Your task to perform on an android device: change the clock display to show seconds Image 0: 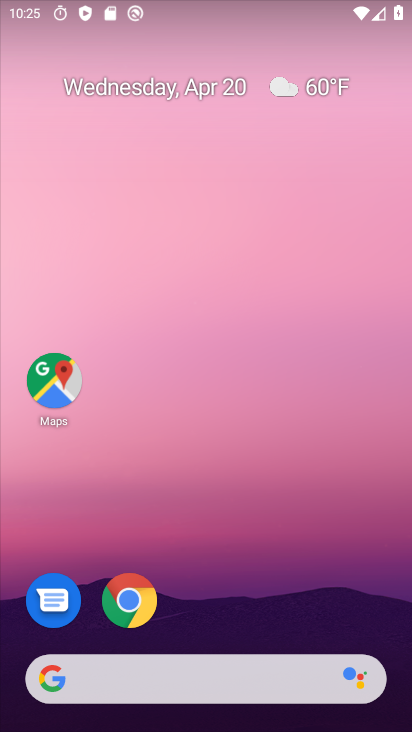
Step 0: drag from (197, 632) to (175, 139)
Your task to perform on an android device: change the clock display to show seconds Image 1: 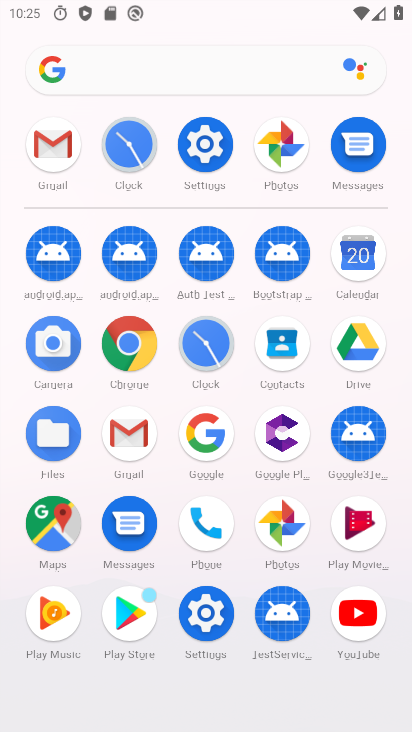
Step 1: click (114, 125)
Your task to perform on an android device: change the clock display to show seconds Image 2: 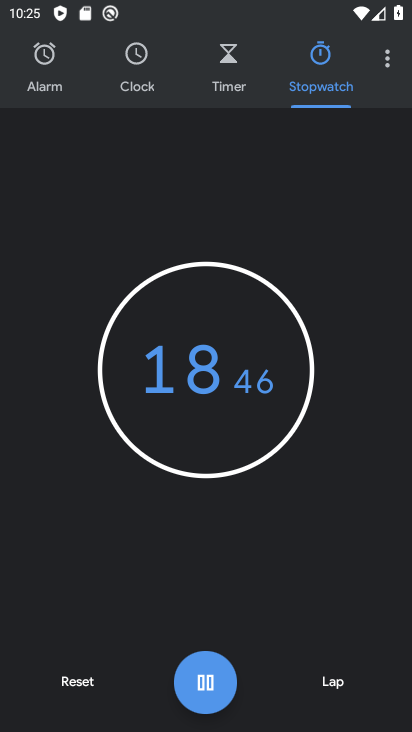
Step 2: click (388, 51)
Your task to perform on an android device: change the clock display to show seconds Image 3: 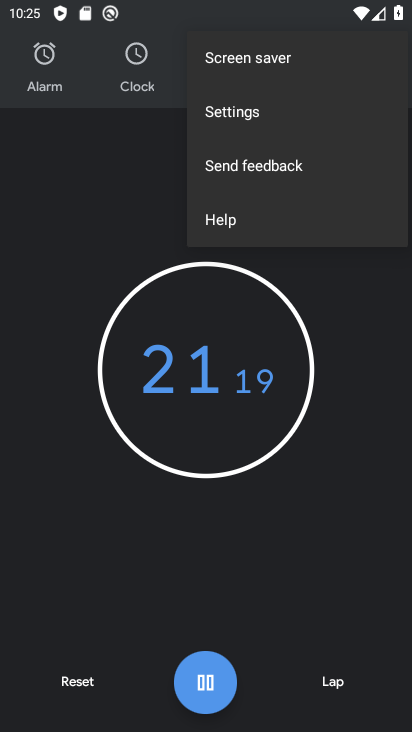
Step 3: click (224, 120)
Your task to perform on an android device: change the clock display to show seconds Image 4: 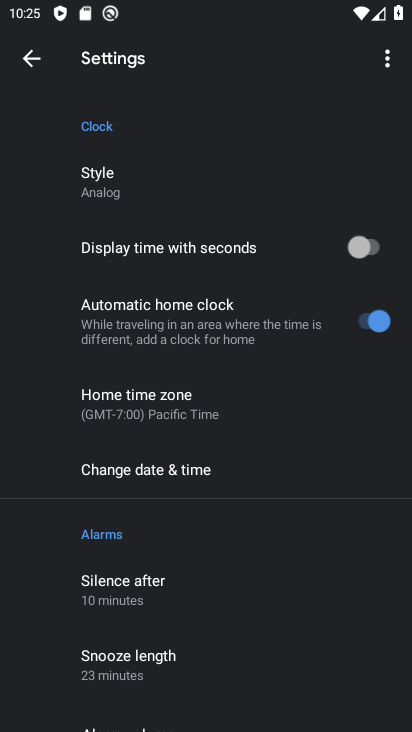
Step 4: click (372, 250)
Your task to perform on an android device: change the clock display to show seconds Image 5: 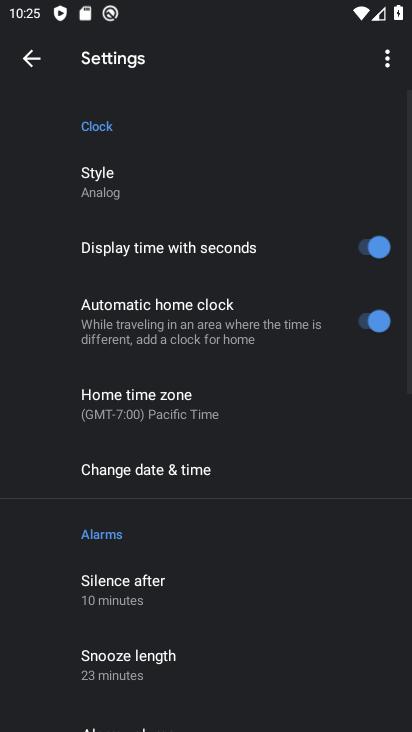
Step 5: task complete